Your task to perform on an android device: clear all cookies in the chrome app Image 0: 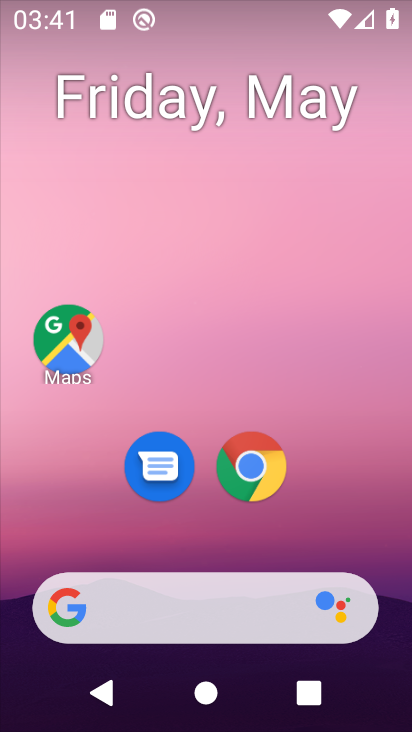
Step 0: click (254, 471)
Your task to perform on an android device: clear all cookies in the chrome app Image 1: 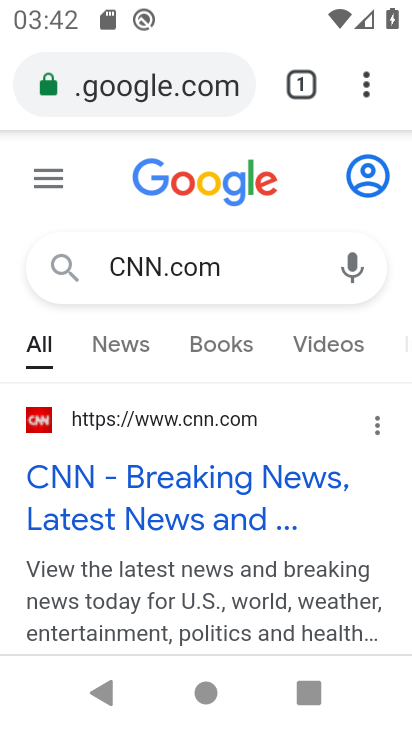
Step 1: click (368, 82)
Your task to perform on an android device: clear all cookies in the chrome app Image 2: 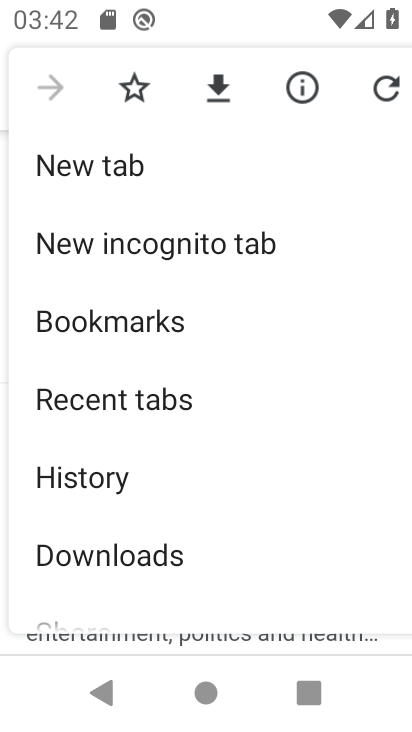
Step 2: click (353, 329)
Your task to perform on an android device: clear all cookies in the chrome app Image 3: 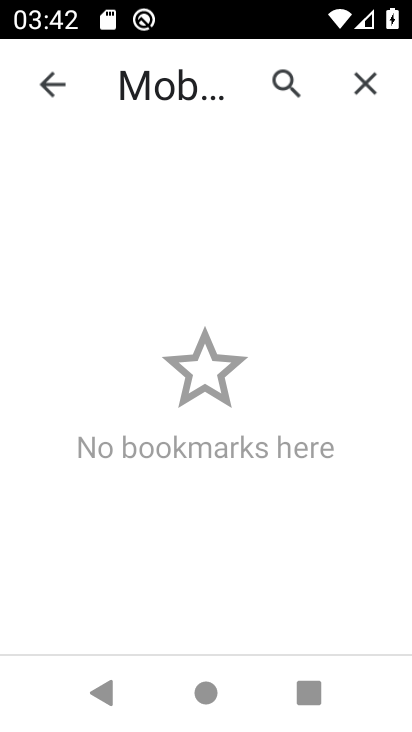
Step 3: press back button
Your task to perform on an android device: clear all cookies in the chrome app Image 4: 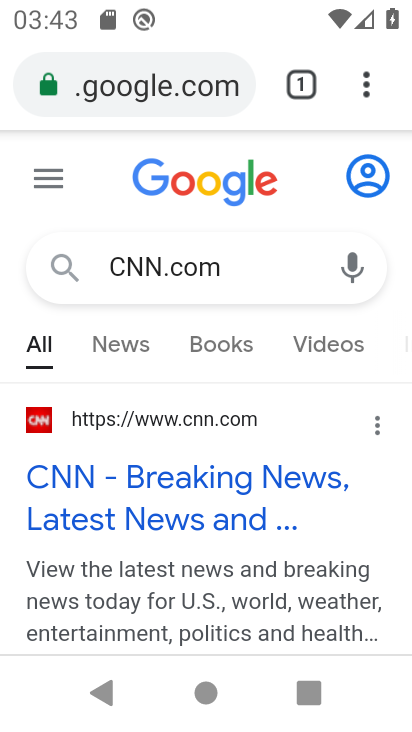
Step 4: click (365, 81)
Your task to perform on an android device: clear all cookies in the chrome app Image 5: 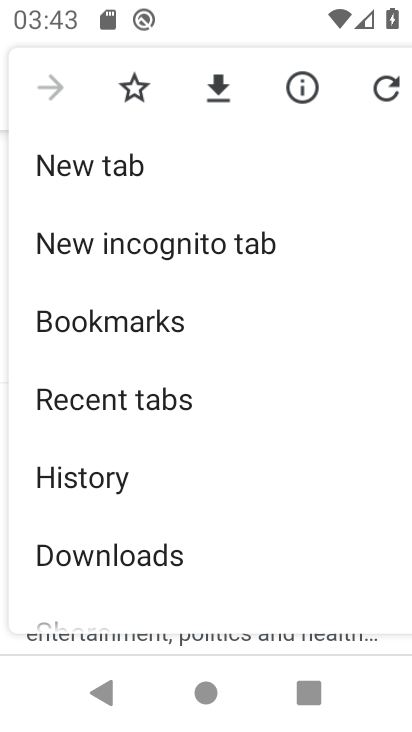
Step 5: click (81, 477)
Your task to perform on an android device: clear all cookies in the chrome app Image 6: 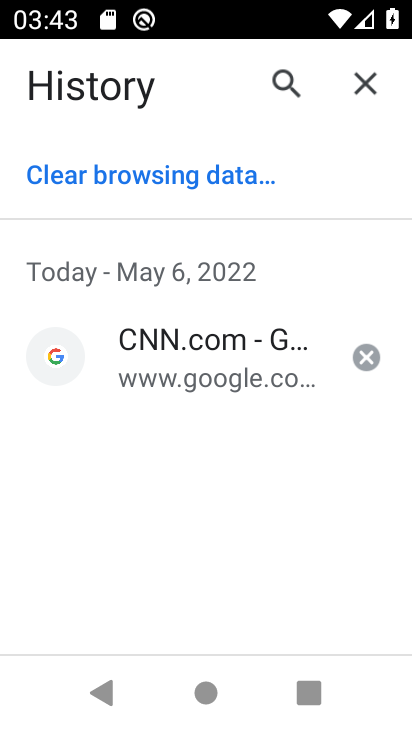
Step 6: click (201, 169)
Your task to perform on an android device: clear all cookies in the chrome app Image 7: 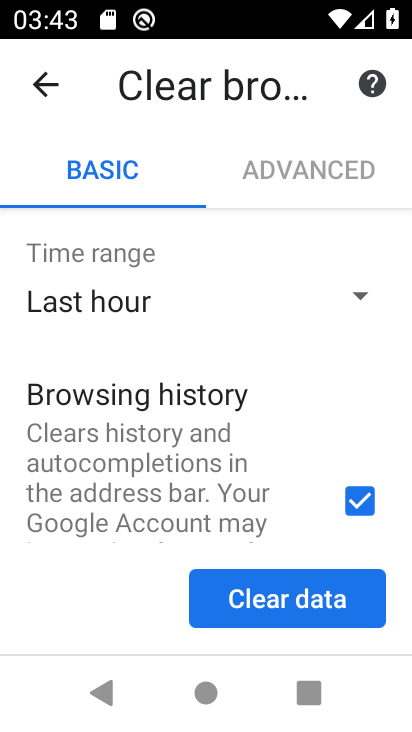
Step 7: drag from (294, 470) to (300, 174)
Your task to perform on an android device: clear all cookies in the chrome app Image 8: 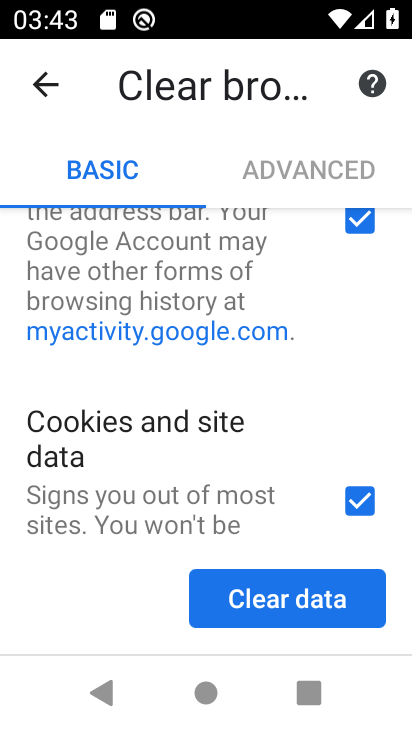
Step 8: click (302, 603)
Your task to perform on an android device: clear all cookies in the chrome app Image 9: 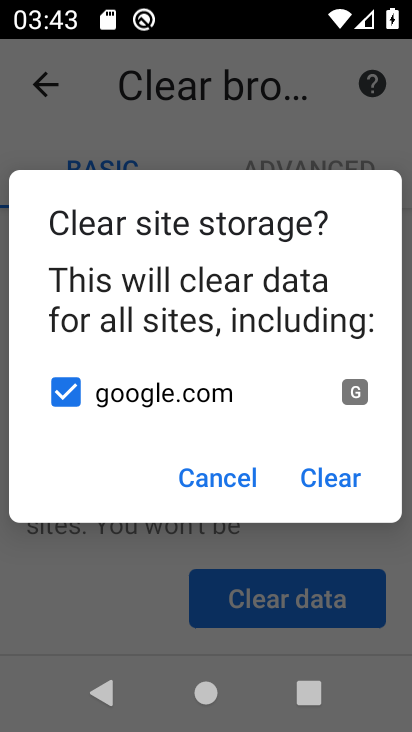
Step 9: click (319, 474)
Your task to perform on an android device: clear all cookies in the chrome app Image 10: 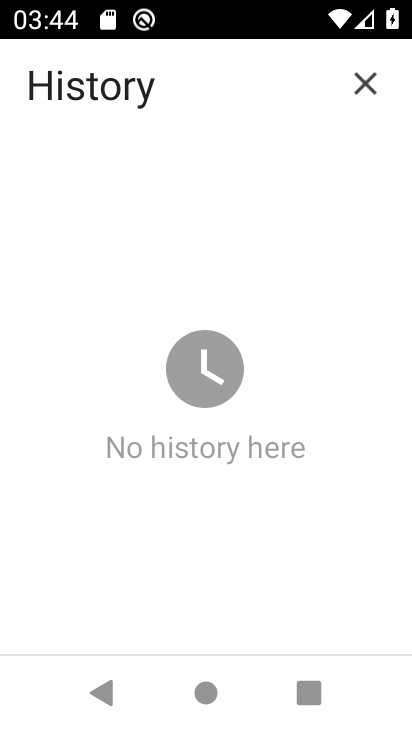
Step 10: task complete